Your task to perform on an android device: change the clock display to analog Image 0: 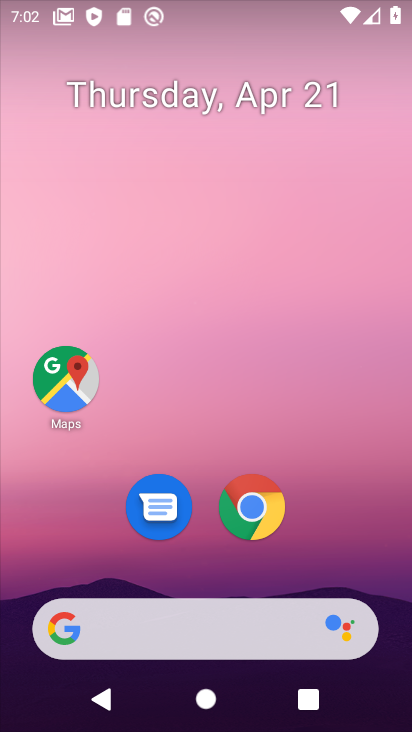
Step 0: drag from (327, 561) to (337, 24)
Your task to perform on an android device: change the clock display to analog Image 1: 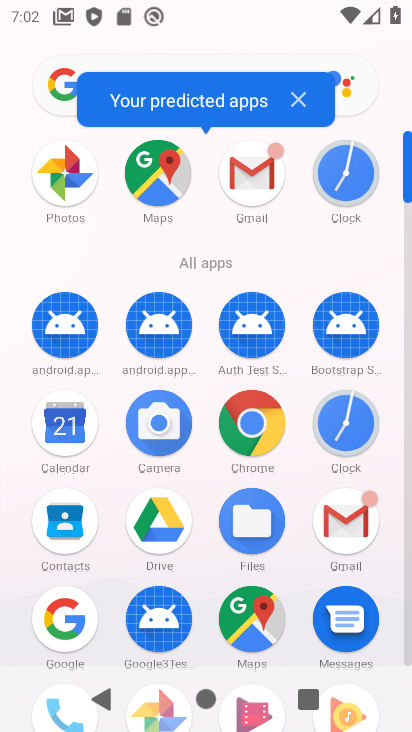
Step 1: click (344, 179)
Your task to perform on an android device: change the clock display to analog Image 2: 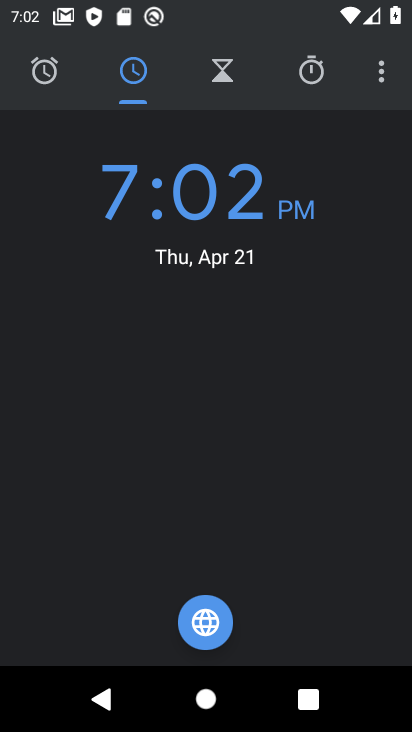
Step 2: click (380, 76)
Your task to perform on an android device: change the clock display to analog Image 3: 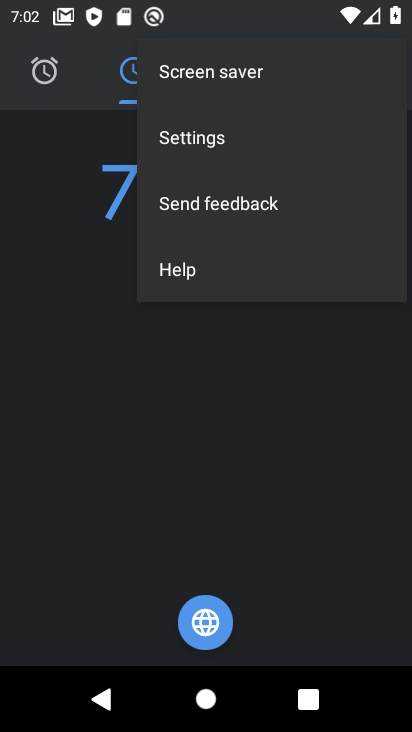
Step 3: click (191, 139)
Your task to perform on an android device: change the clock display to analog Image 4: 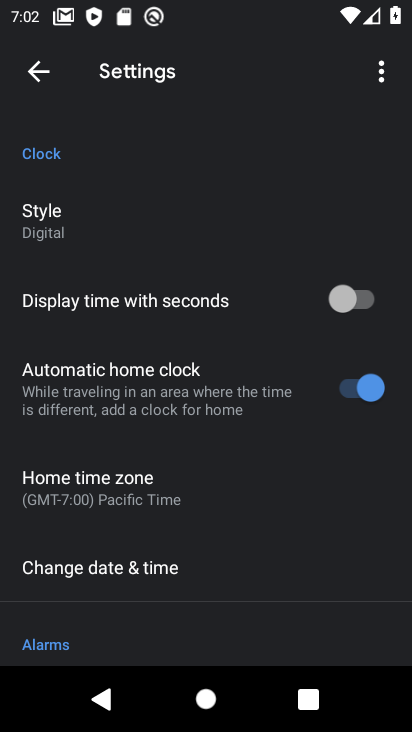
Step 4: click (53, 213)
Your task to perform on an android device: change the clock display to analog Image 5: 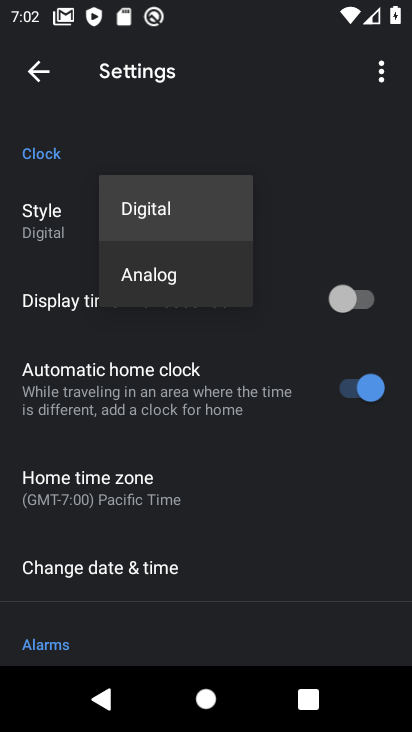
Step 5: click (149, 275)
Your task to perform on an android device: change the clock display to analog Image 6: 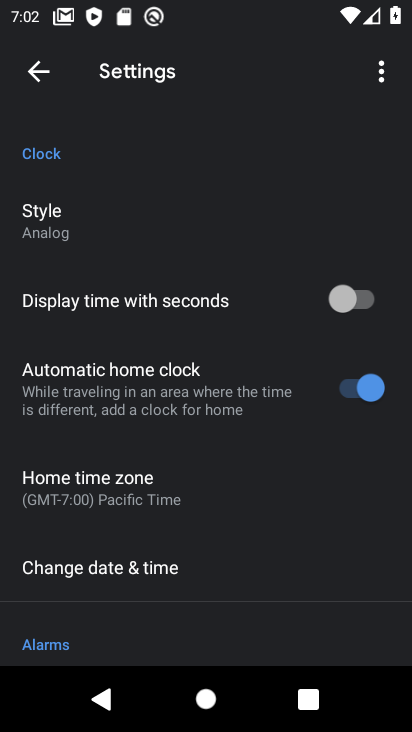
Step 6: task complete